Your task to perform on an android device: Set the phone to "Do not disturb". Image 0: 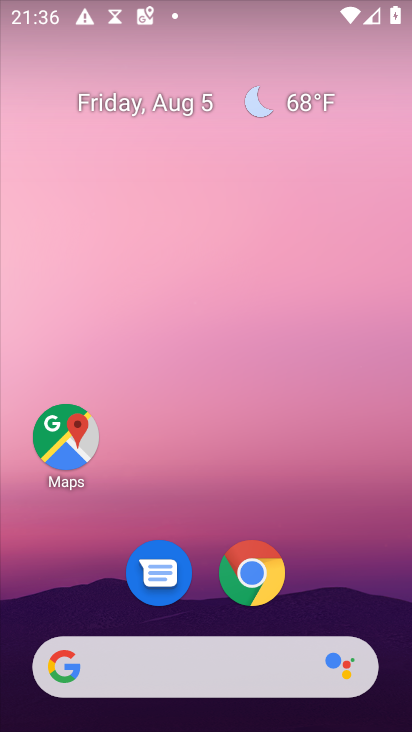
Step 0: drag from (216, 662) to (218, 59)
Your task to perform on an android device: Set the phone to "Do not disturb". Image 1: 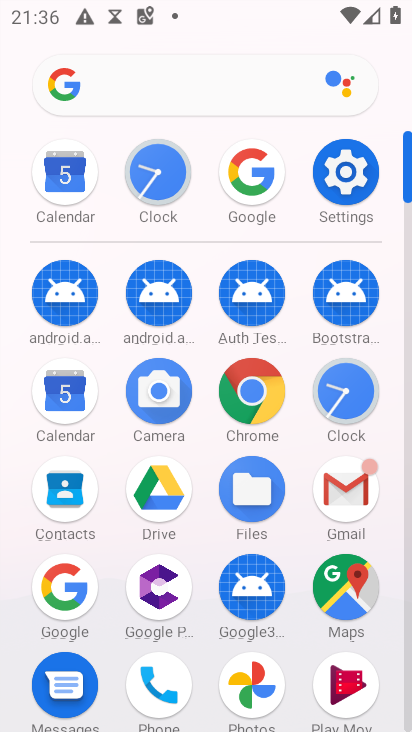
Step 1: click (346, 172)
Your task to perform on an android device: Set the phone to "Do not disturb". Image 2: 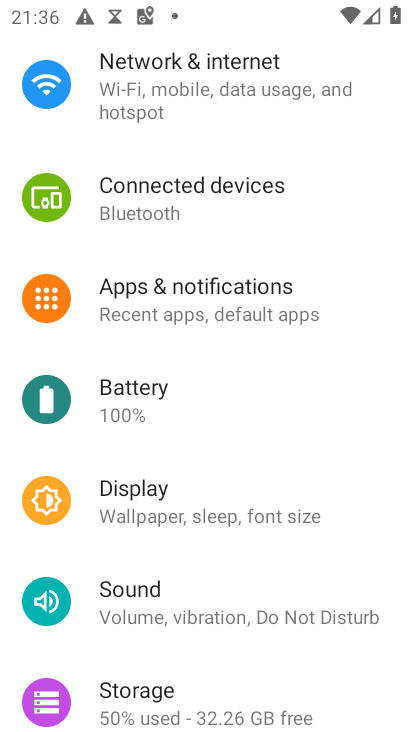
Step 2: click (219, 619)
Your task to perform on an android device: Set the phone to "Do not disturb". Image 3: 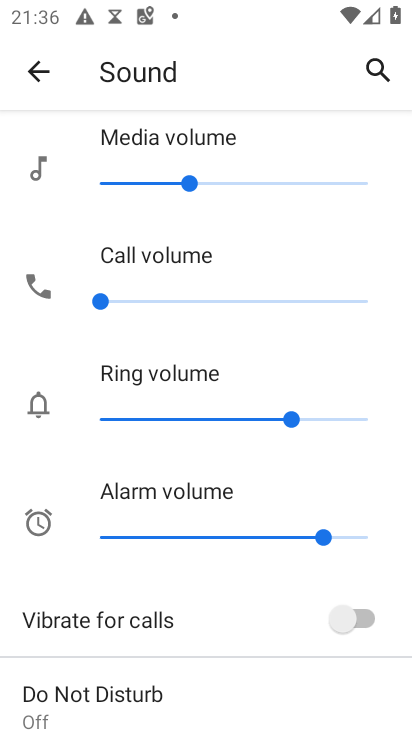
Step 3: drag from (155, 695) to (188, 586)
Your task to perform on an android device: Set the phone to "Do not disturb". Image 4: 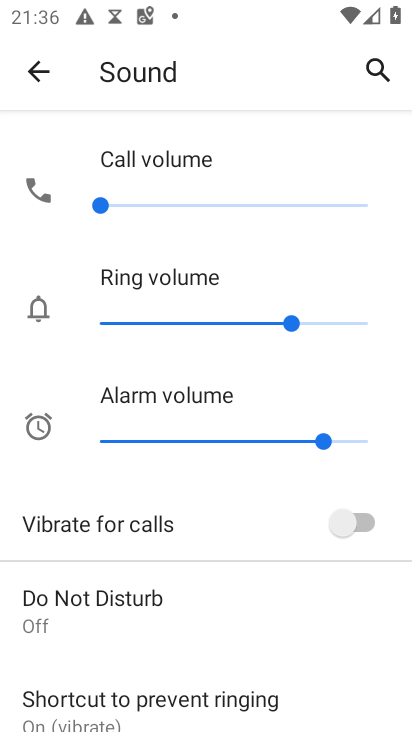
Step 4: click (162, 593)
Your task to perform on an android device: Set the phone to "Do not disturb". Image 5: 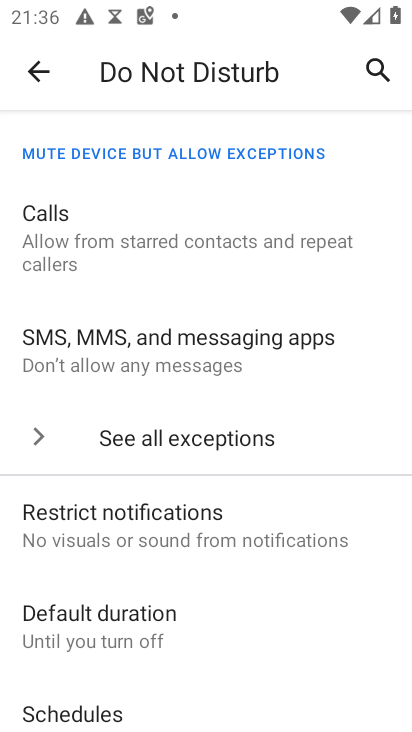
Step 5: drag from (180, 676) to (235, 464)
Your task to perform on an android device: Set the phone to "Do not disturb". Image 6: 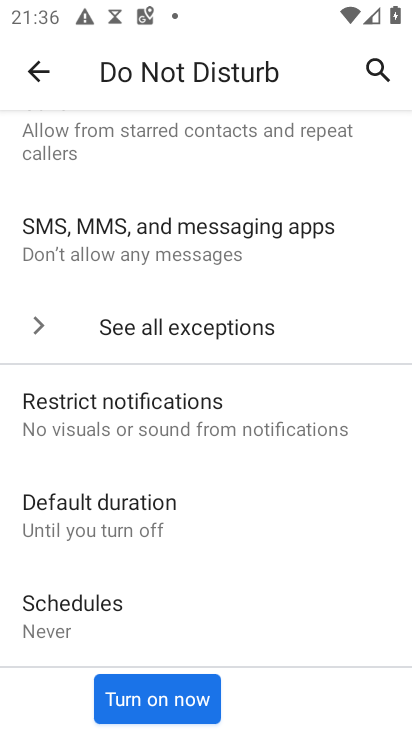
Step 6: click (150, 704)
Your task to perform on an android device: Set the phone to "Do not disturb". Image 7: 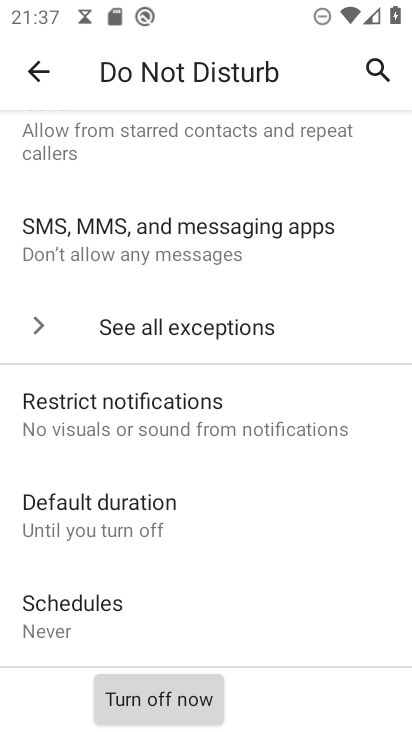
Step 7: task complete